Your task to perform on an android device: Search for jbl charge 4 on costco.com, select the first entry, add it to the cart, then select checkout. Image 0: 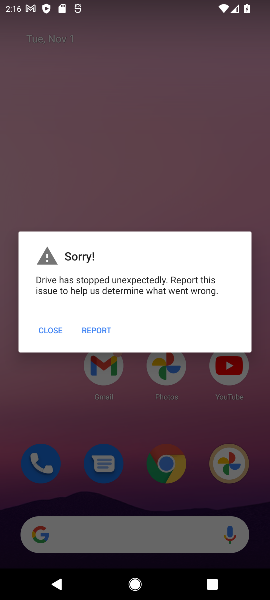
Step 0: press home button
Your task to perform on an android device: Search for jbl charge 4 on costco.com, select the first entry, add it to the cart, then select checkout. Image 1: 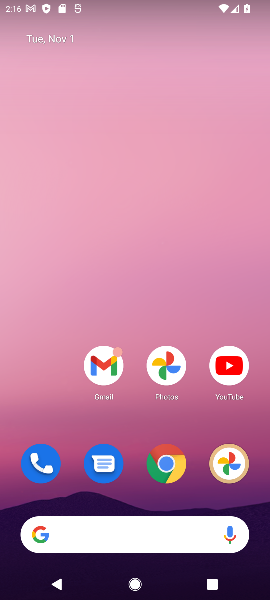
Step 1: drag from (138, 500) to (100, 38)
Your task to perform on an android device: Search for jbl charge 4 on costco.com, select the first entry, add it to the cart, then select checkout. Image 2: 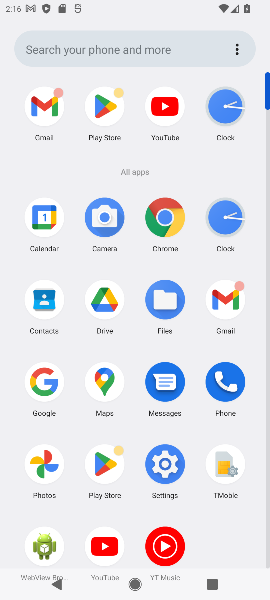
Step 2: click (166, 215)
Your task to perform on an android device: Search for jbl charge 4 on costco.com, select the first entry, add it to the cart, then select checkout. Image 3: 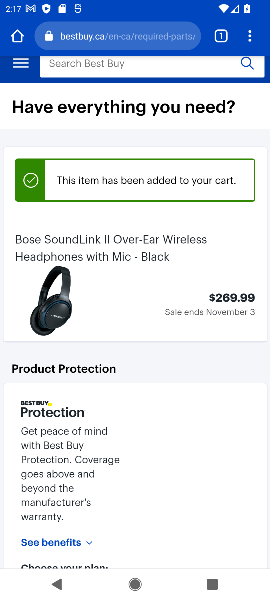
Step 3: click (127, 30)
Your task to perform on an android device: Search for jbl charge 4 on costco.com, select the first entry, add it to the cart, then select checkout. Image 4: 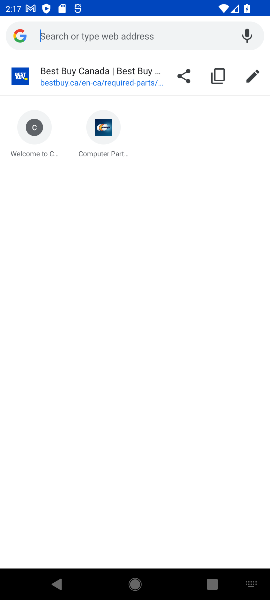
Step 4: type "costco.com"
Your task to perform on an android device: Search for jbl charge 4 on costco.com, select the first entry, add it to the cart, then select checkout. Image 5: 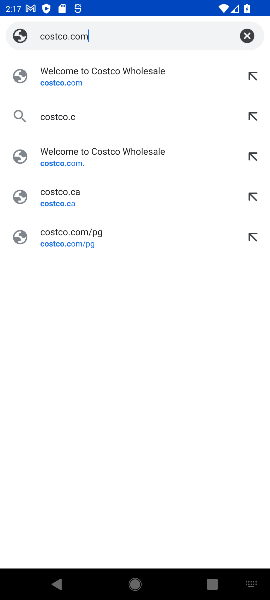
Step 5: press enter
Your task to perform on an android device: Search for jbl charge 4 on costco.com, select the first entry, add it to the cart, then select checkout. Image 6: 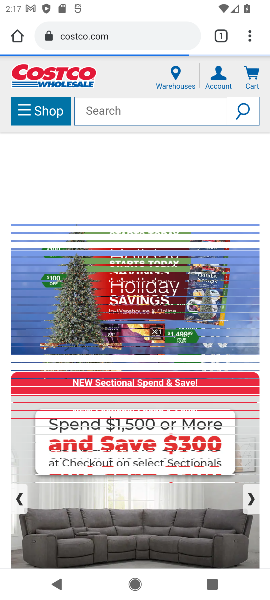
Step 6: click (127, 110)
Your task to perform on an android device: Search for jbl charge 4 on costco.com, select the first entry, add it to the cart, then select checkout. Image 7: 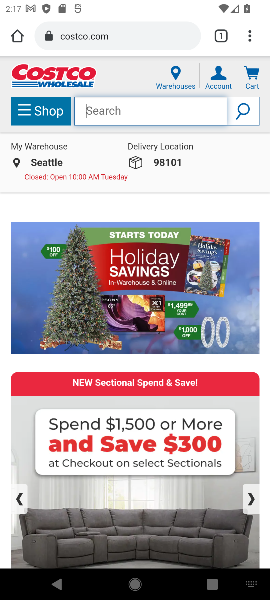
Step 7: type "jbl charge 4"
Your task to perform on an android device: Search for jbl charge 4 on costco.com, select the first entry, add it to the cart, then select checkout. Image 8: 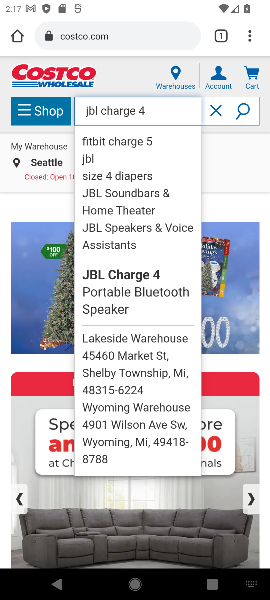
Step 8: click (238, 101)
Your task to perform on an android device: Search for jbl charge 4 on costco.com, select the first entry, add it to the cart, then select checkout. Image 9: 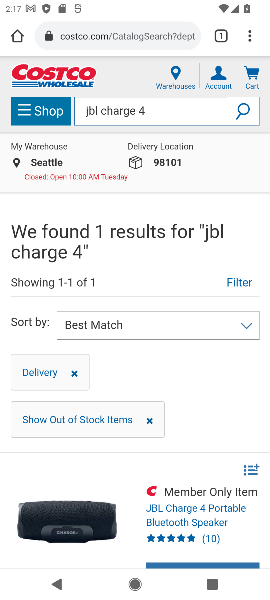
Step 9: drag from (160, 463) to (106, 515)
Your task to perform on an android device: Search for jbl charge 4 on costco.com, select the first entry, add it to the cart, then select checkout. Image 10: 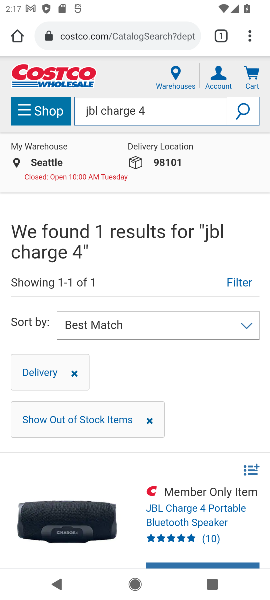
Step 10: drag from (150, 393) to (177, 136)
Your task to perform on an android device: Search for jbl charge 4 on costco.com, select the first entry, add it to the cart, then select checkout. Image 11: 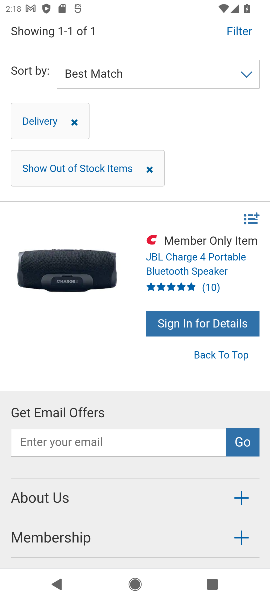
Step 11: click (105, 258)
Your task to perform on an android device: Search for jbl charge 4 on costco.com, select the first entry, add it to the cart, then select checkout. Image 12: 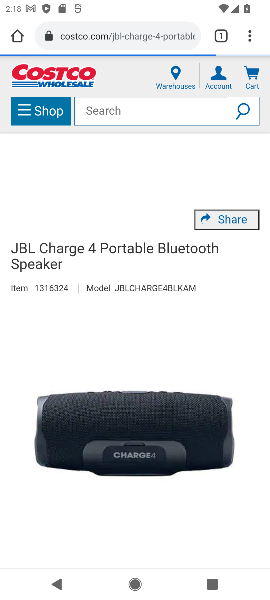
Step 12: task complete